Your task to perform on an android device: Open battery settings Image 0: 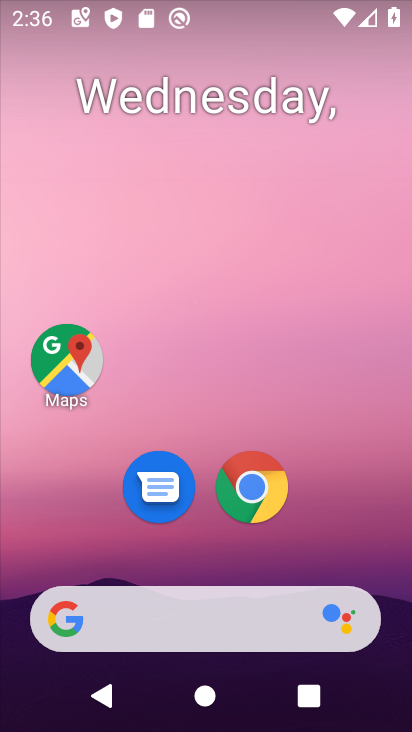
Step 0: drag from (349, 496) to (285, 13)
Your task to perform on an android device: Open battery settings Image 1: 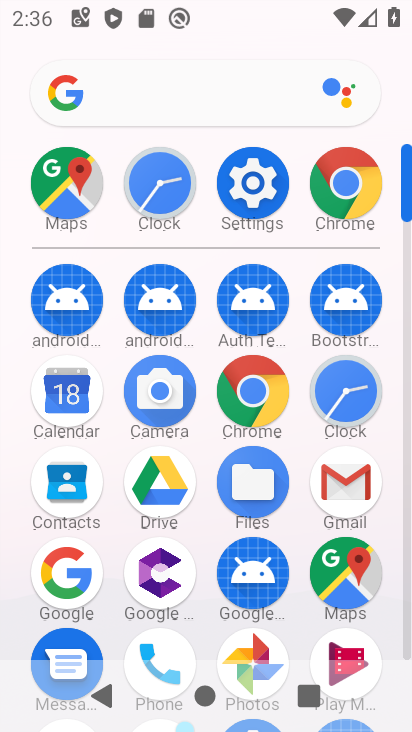
Step 1: click (252, 182)
Your task to perform on an android device: Open battery settings Image 2: 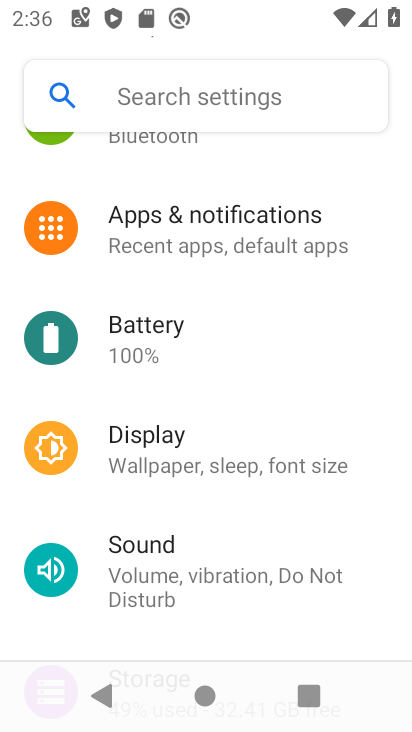
Step 2: click (124, 324)
Your task to perform on an android device: Open battery settings Image 3: 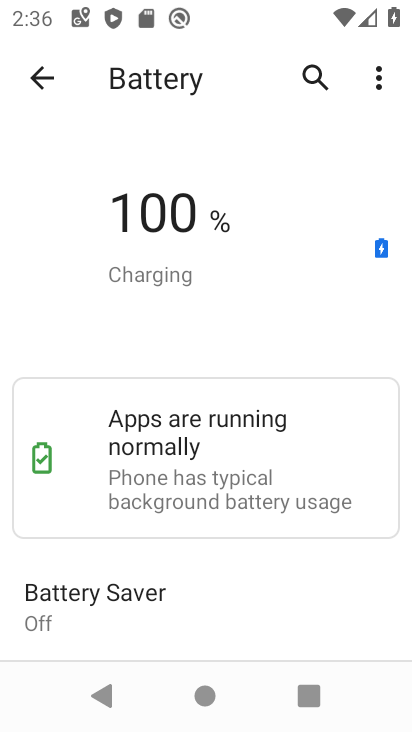
Step 3: task complete